Your task to perform on an android device: check storage Image 0: 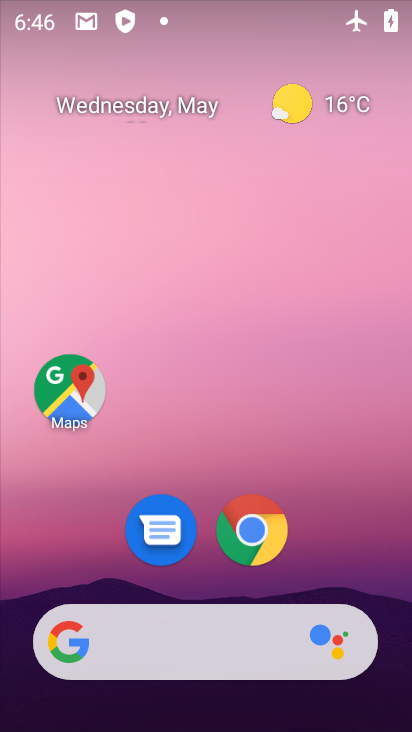
Step 0: drag from (150, 588) to (170, 181)
Your task to perform on an android device: check storage Image 1: 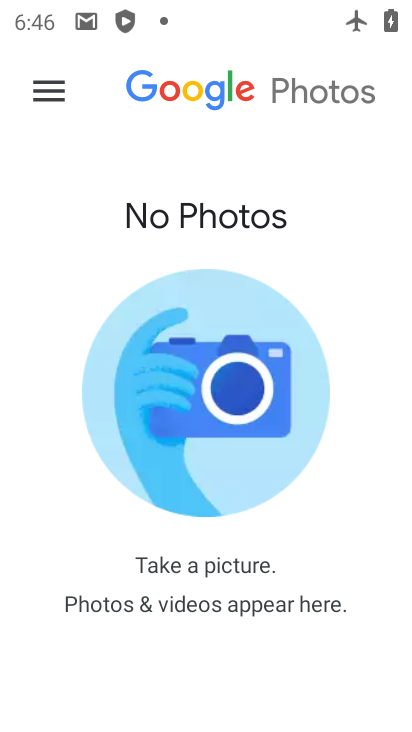
Step 1: press home button
Your task to perform on an android device: check storage Image 2: 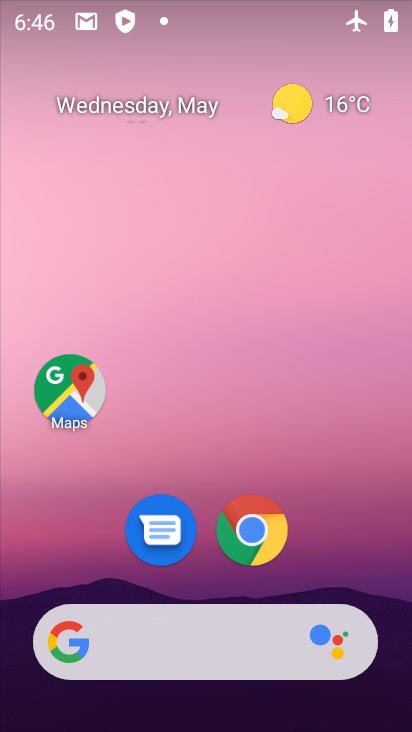
Step 2: drag from (227, 553) to (198, 211)
Your task to perform on an android device: check storage Image 3: 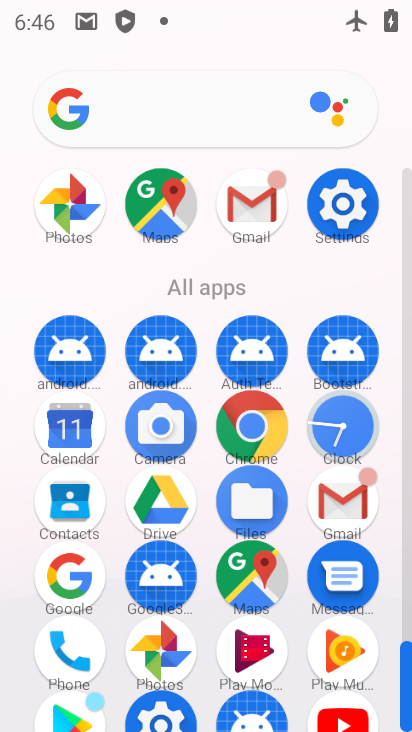
Step 3: click (335, 198)
Your task to perform on an android device: check storage Image 4: 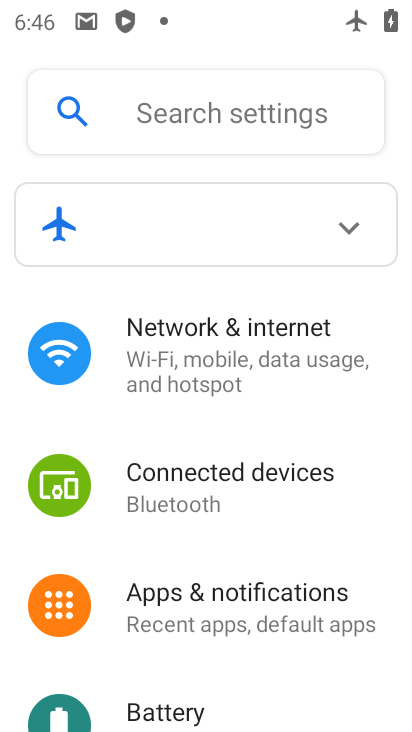
Step 4: drag from (248, 616) to (261, 326)
Your task to perform on an android device: check storage Image 5: 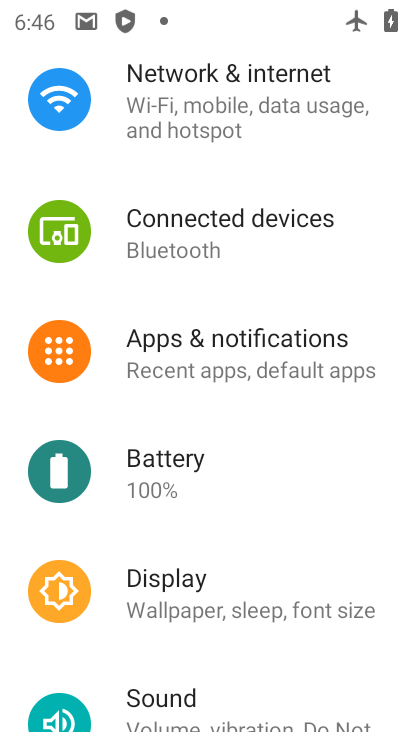
Step 5: drag from (142, 643) to (214, 301)
Your task to perform on an android device: check storage Image 6: 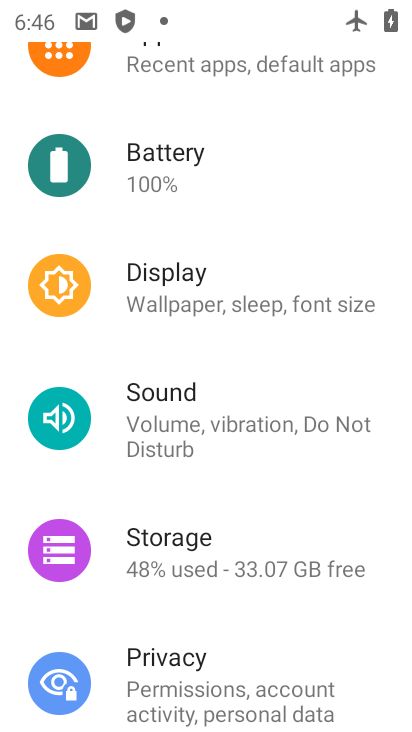
Step 6: click (175, 535)
Your task to perform on an android device: check storage Image 7: 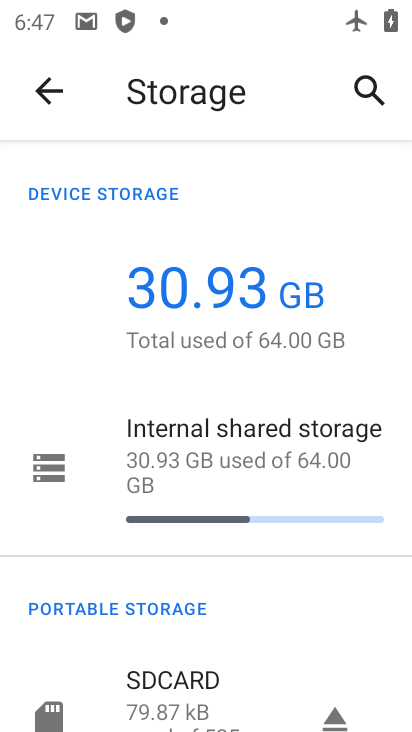
Step 7: task complete